Your task to perform on an android device: Go to Google Image 0: 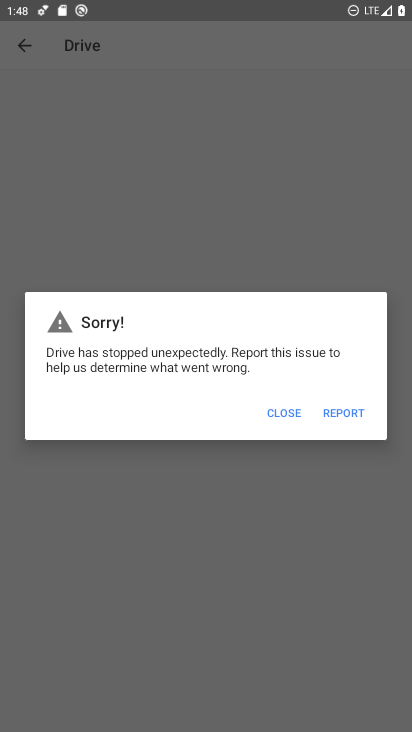
Step 0: press home button
Your task to perform on an android device: Go to Google Image 1: 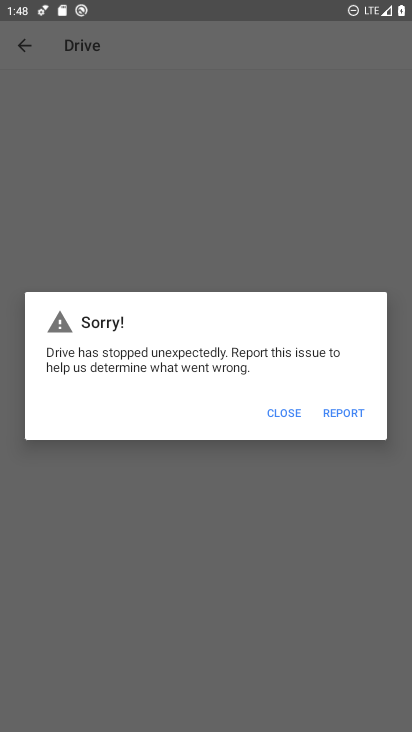
Step 1: drag from (387, 673) to (303, 23)
Your task to perform on an android device: Go to Google Image 2: 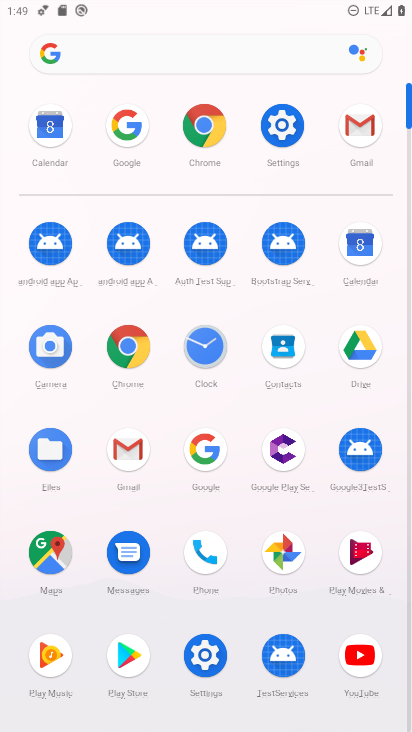
Step 2: click (196, 462)
Your task to perform on an android device: Go to Google Image 3: 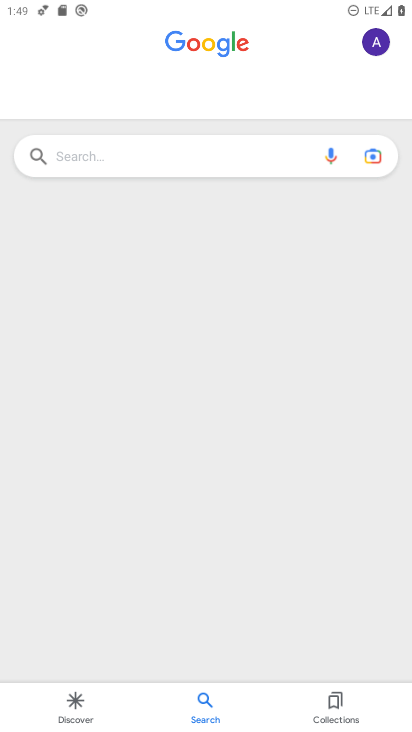
Step 3: task complete